Your task to perform on an android device: toggle sleep mode Image 0: 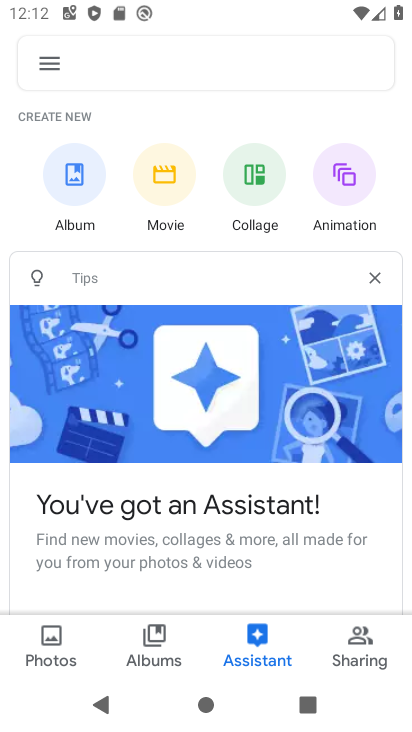
Step 0: drag from (163, 103) to (152, 64)
Your task to perform on an android device: toggle sleep mode Image 1: 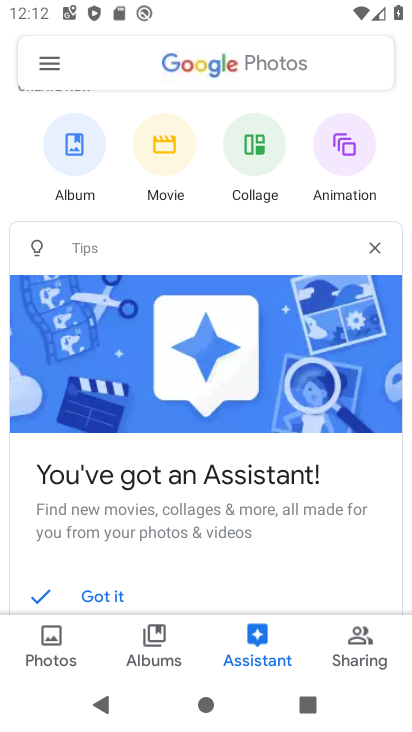
Step 1: press home button
Your task to perform on an android device: toggle sleep mode Image 2: 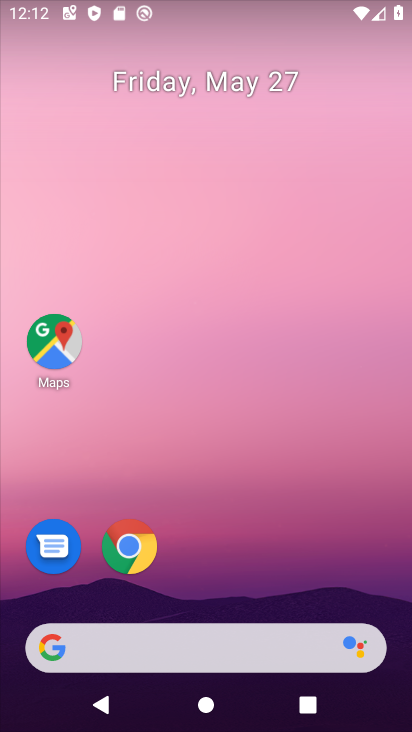
Step 2: drag from (223, 534) to (167, 0)
Your task to perform on an android device: toggle sleep mode Image 3: 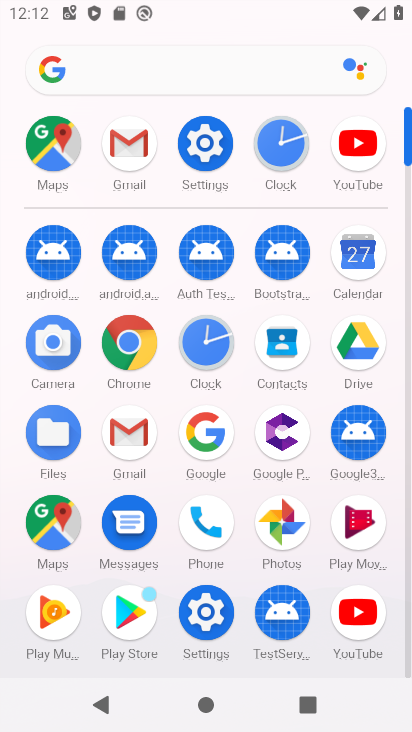
Step 3: click (202, 146)
Your task to perform on an android device: toggle sleep mode Image 4: 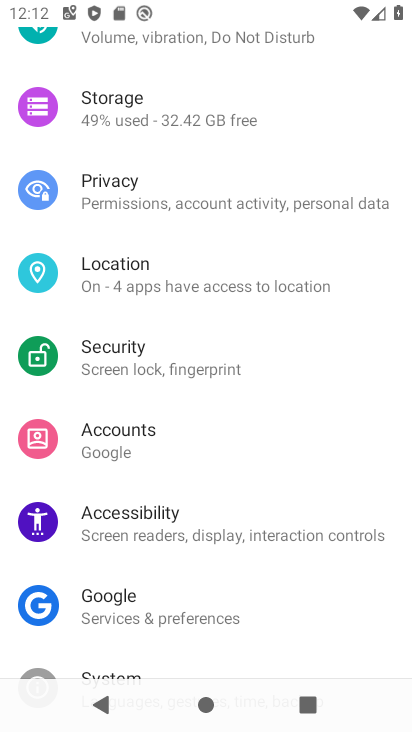
Step 4: drag from (173, 270) to (251, 693)
Your task to perform on an android device: toggle sleep mode Image 5: 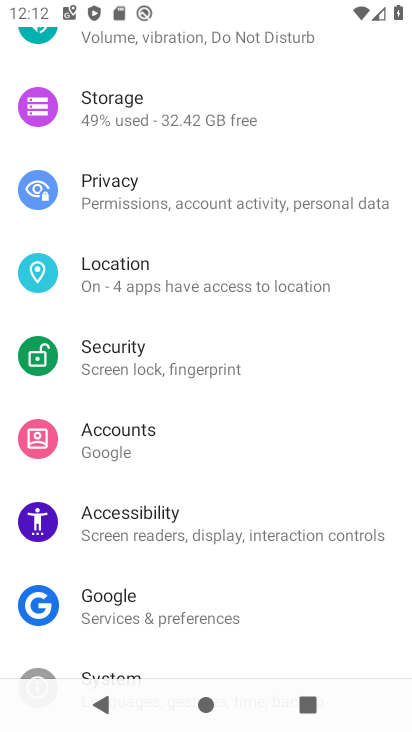
Step 5: click (120, 40)
Your task to perform on an android device: toggle sleep mode Image 6: 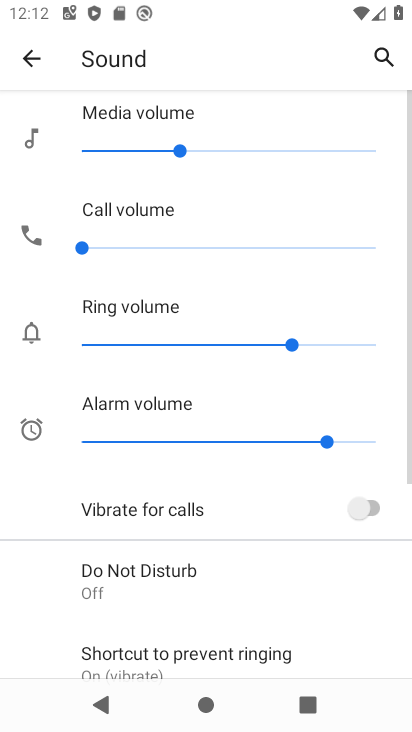
Step 6: task complete